Your task to perform on an android device: delete a single message in the gmail app Image 0: 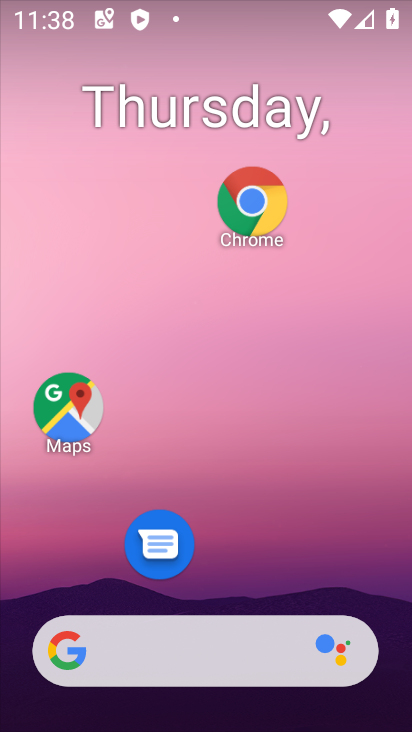
Step 0: press home button
Your task to perform on an android device: delete a single message in the gmail app Image 1: 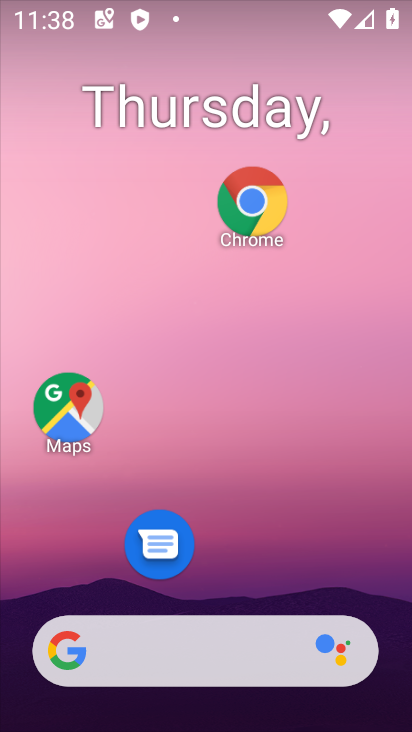
Step 1: press home button
Your task to perform on an android device: delete a single message in the gmail app Image 2: 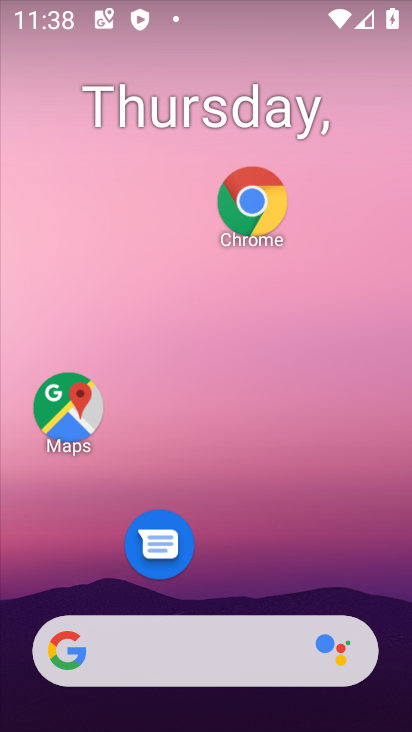
Step 2: press home button
Your task to perform on an android device: delete a single message in the gmail app Image 3: 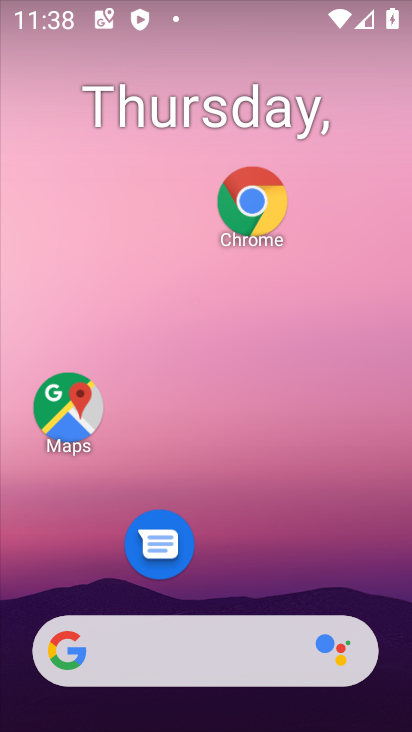
Step 3: drag from (238, 326) to (230, 62)
Your task to perform on an android device: delete a single message in the gmail app Image 4: 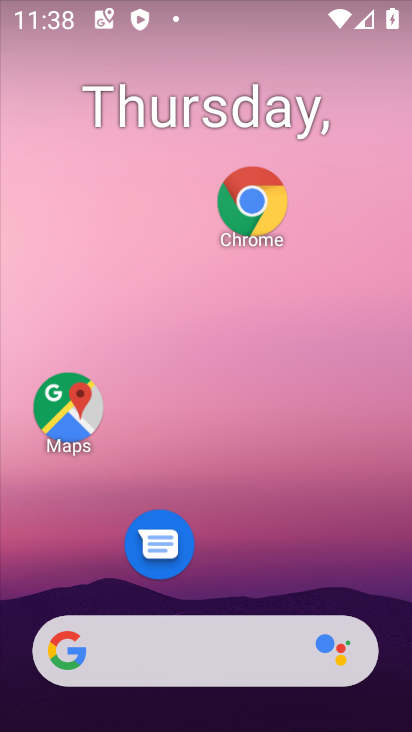
Step 4: drag from (232, 589) to (225, 40)
Your task to perform on an android device: delete a single message in the gmail app Image 5: 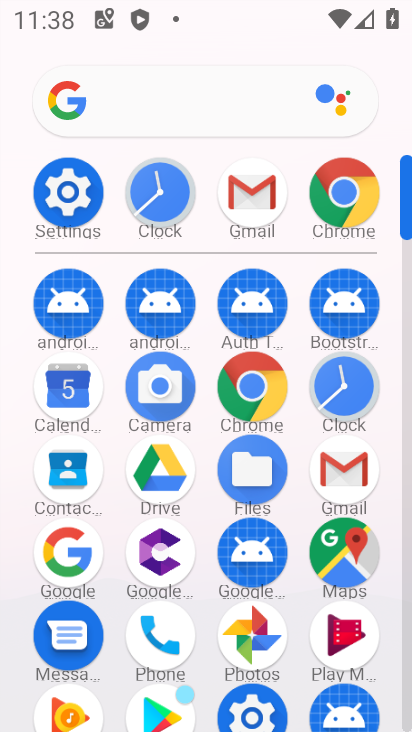
Step 5: click (252, 181)
Your task to perform on an android device: delete a single message in the gmail app Image 6: 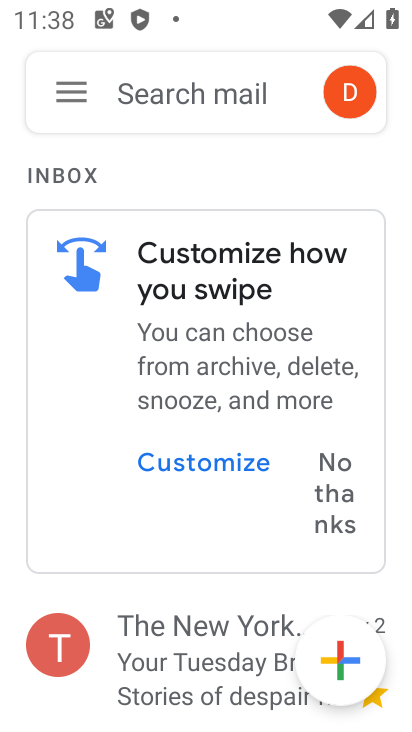
Step 6: drag from (220, 605) to (226, 146)
Your task to perform on an android device: delete a single message in the gmail app Image 7: 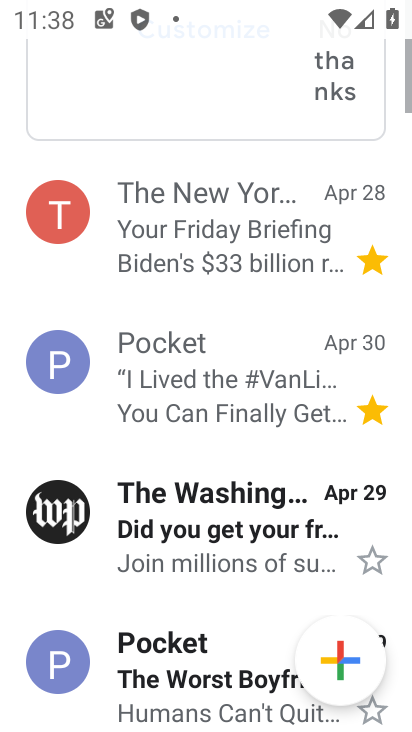
Step 7: click (63, 512)
Your task to perform on an android device: delete a single message in the gmail app Image 8: 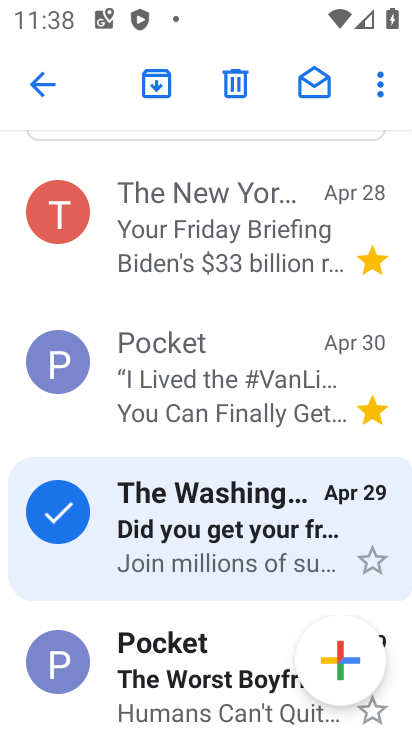
Step 8: click (234, 80)
Your task to perform on an android device: delete a single message in the gmail app Image 9: 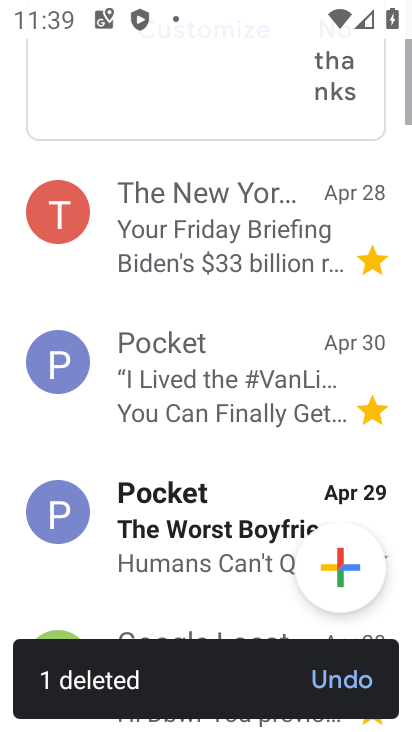
Step 9: task complete